Your task to perform on an android device: Open privacy settings Image 0: 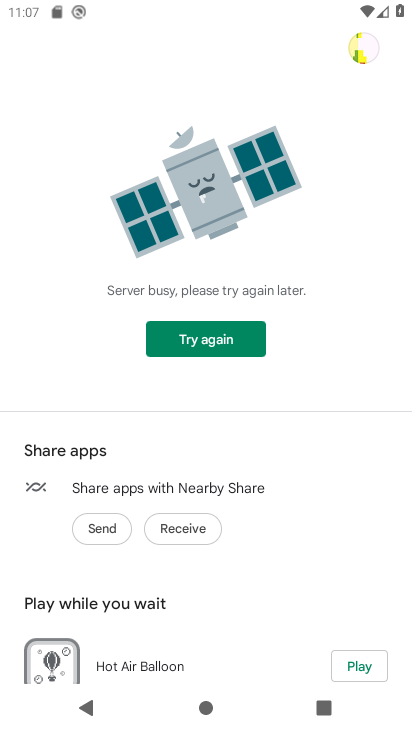
Step 0: press home button
Your task to perform on an android device: Open privacy settings Image 1: 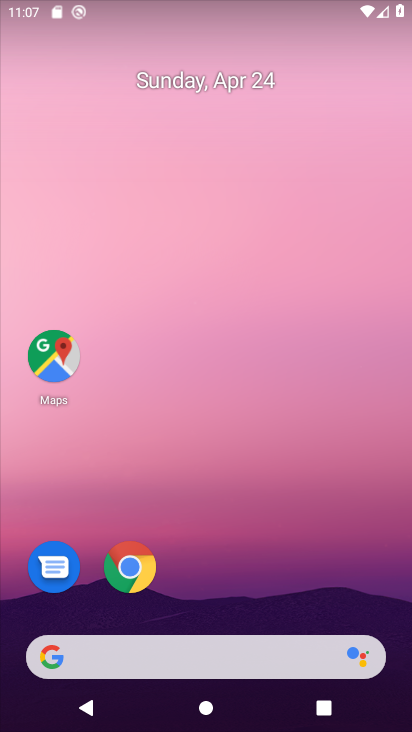
Step 1: drag from (209, 571) to (240, 120)
Your task to perform on an android device: Open privacy settings Image 2: 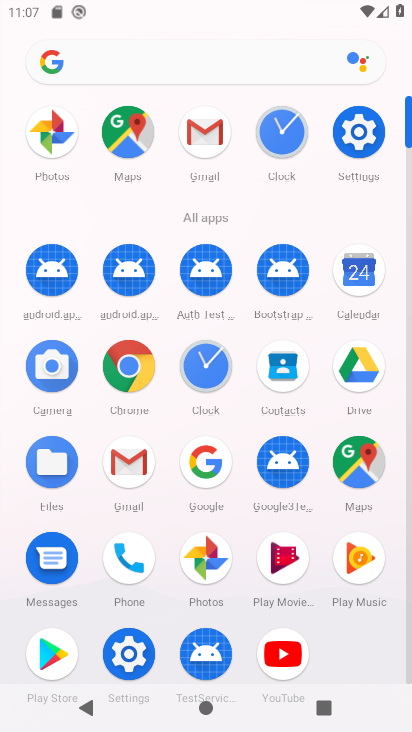
Step 2: click (357, 143)
Your task to perform on an android device: Open privacy settings Image 3: 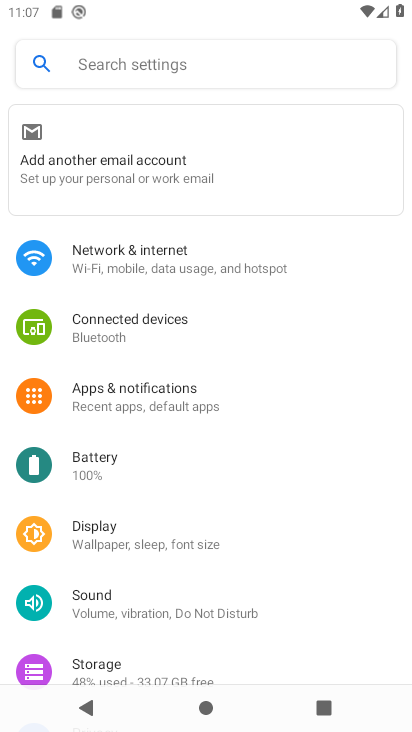
Step 3: drag from (187, 560) to (246, 257)
Your task to perform on an android device: Open privacy settings Image 4: 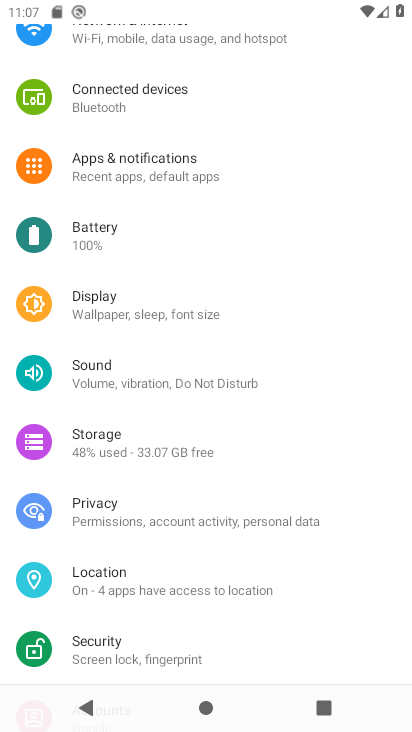
Step 4: drag from (191, 500) to (229, 225)
Your task to perform on an android device: Open privacy settings Image 5: 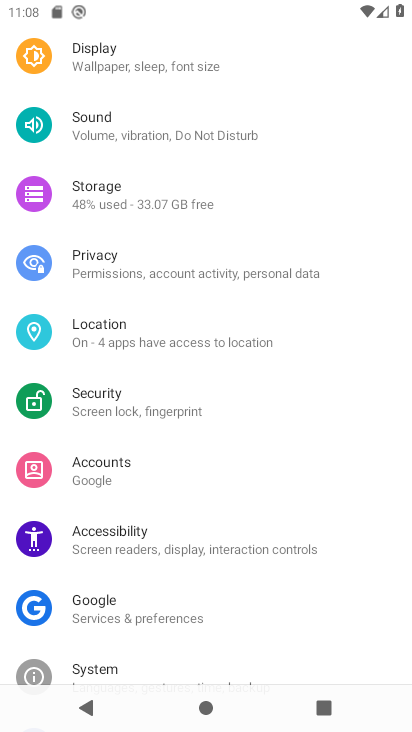
Step 5: click (215, 281)
Your task to perform on an android device: Open privacy settings Image 6: 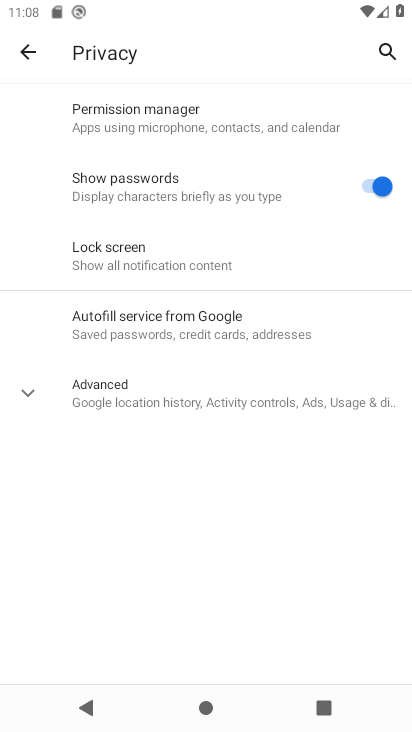
Step 6: task complete